Your task to perform on an android device: Clear the shopping cart on target. Add beats solo 3 to the cart on target Image 0: 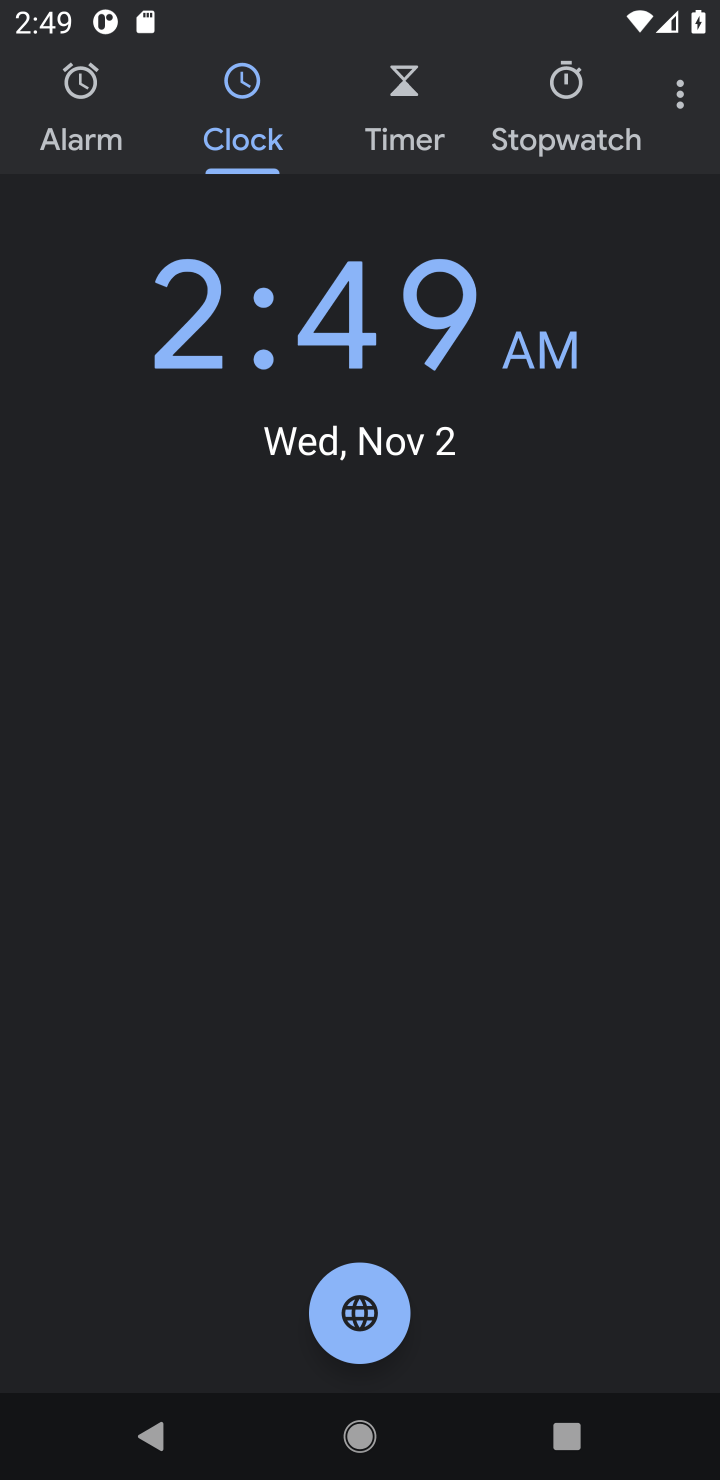
Step 0: press home button
Your task to perform on an android device: Clear the shopping cart on target. Add beats solo 3 to the cart on target Image 1: 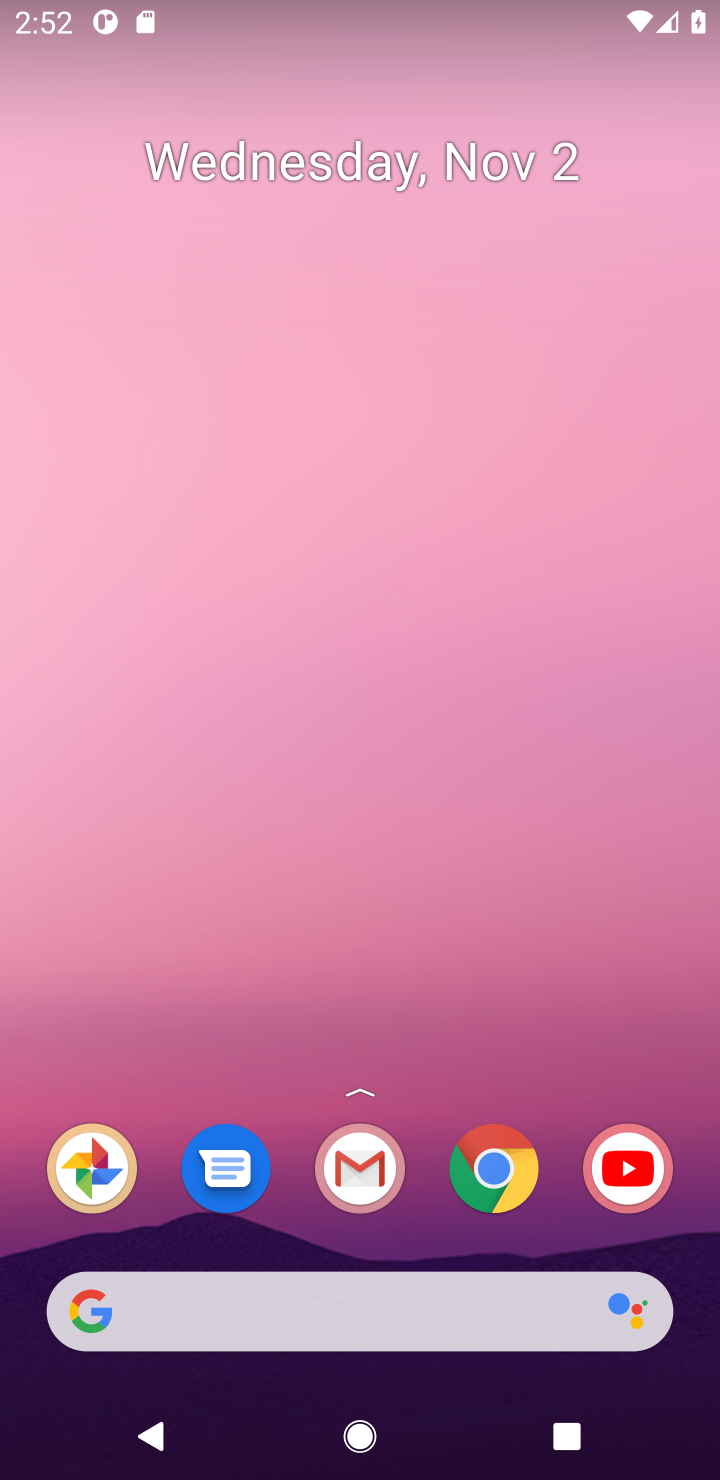
Step 1: click (276, 1297)
Your task to perform on an android device: Clear the shopping cart on target. Add beats solo 3 to the cart on target Image 2: 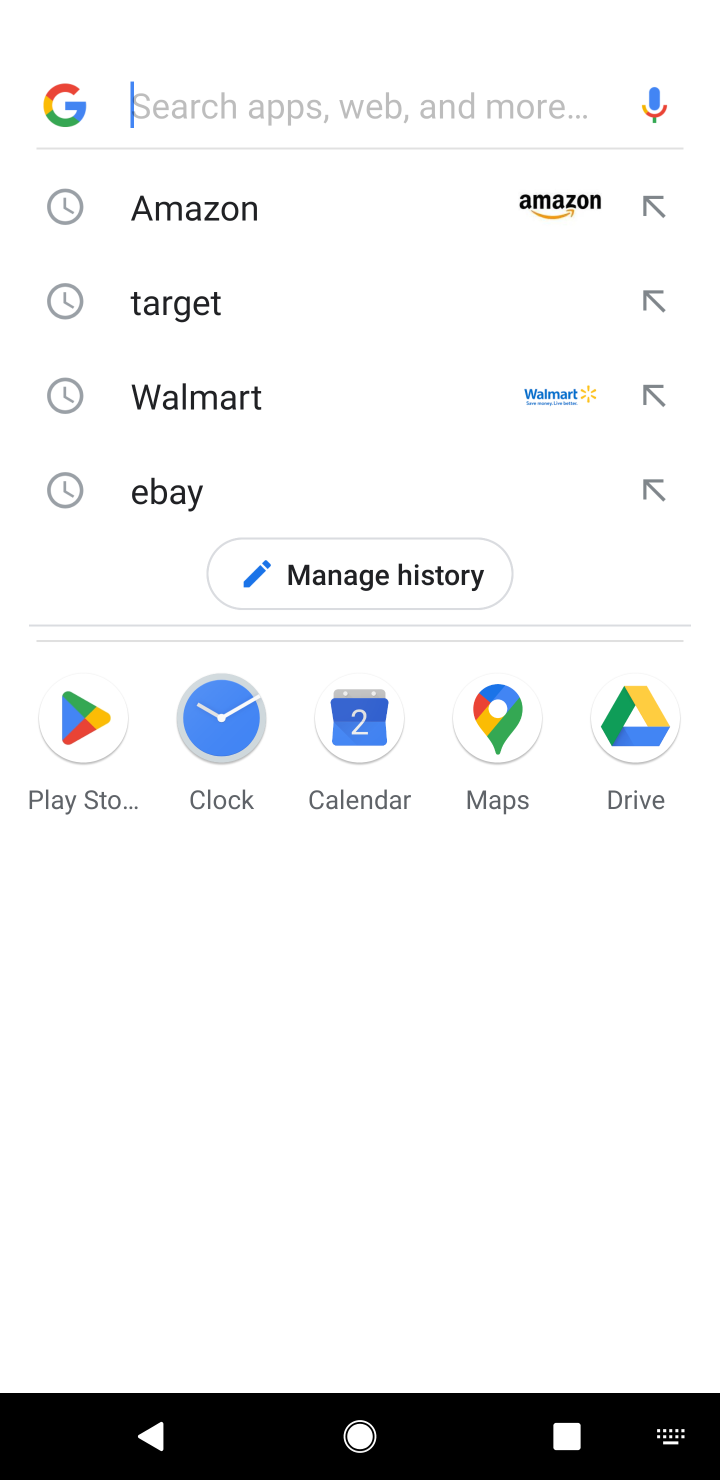
Step 2: type "target"
Your task to perform on an android device: Clear the shopping cart on target. Add beats solo 3 to the cart on target Image 3: 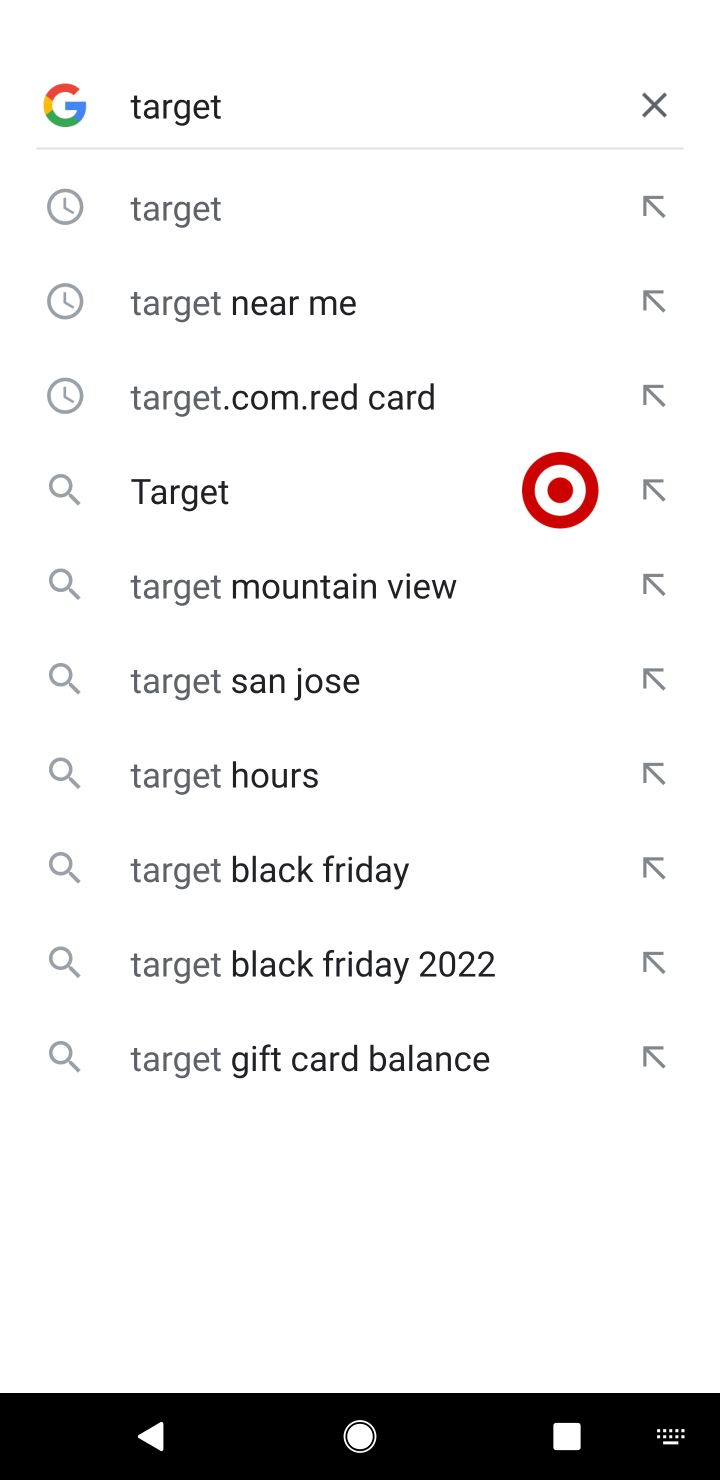
Step 3: click (444, 479)
Your task to perform on an android device: Clear the shopping cart on target. Add beats solo 3 to the cart on target Image 4: 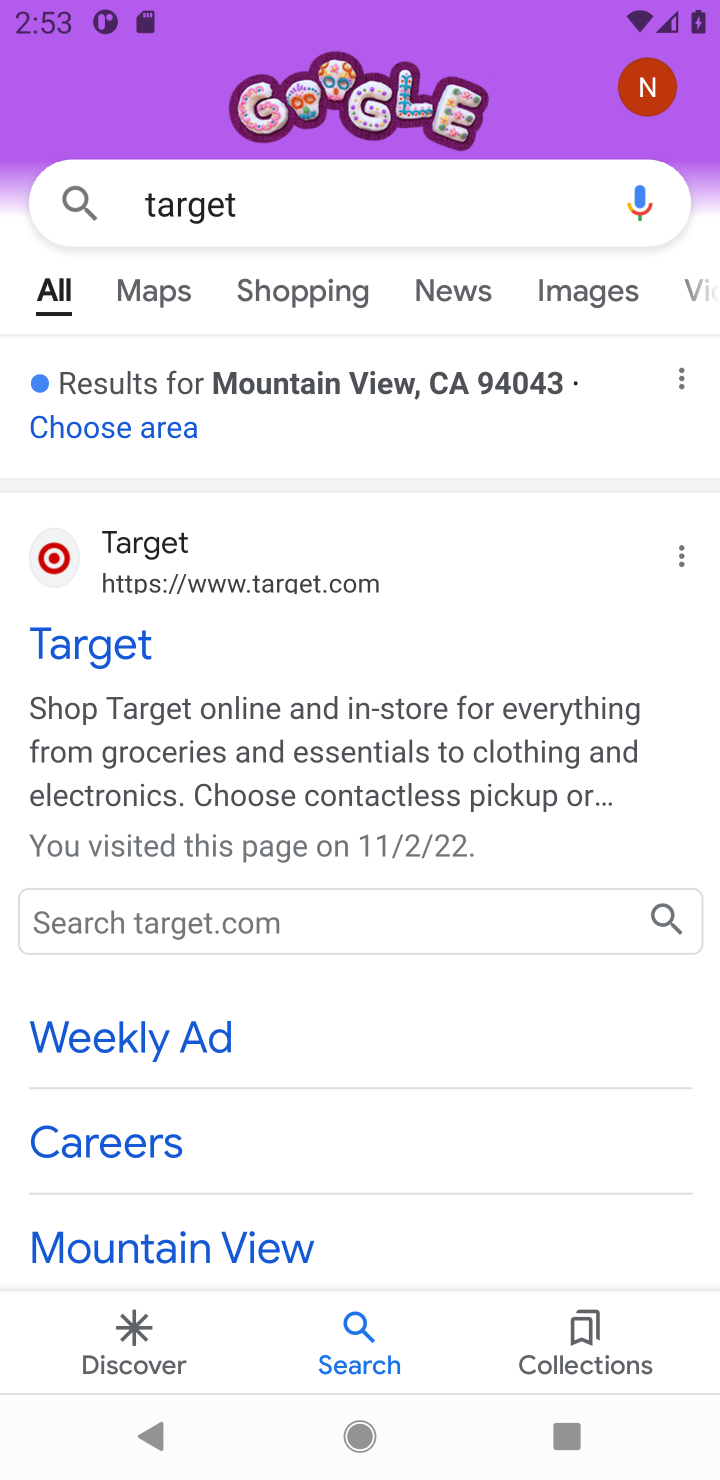
Step 4: click (121, 562)
Your task to perform on an android device: Clear the shopping cart on target. Add beats solo 3 to the cart on target Image 5: 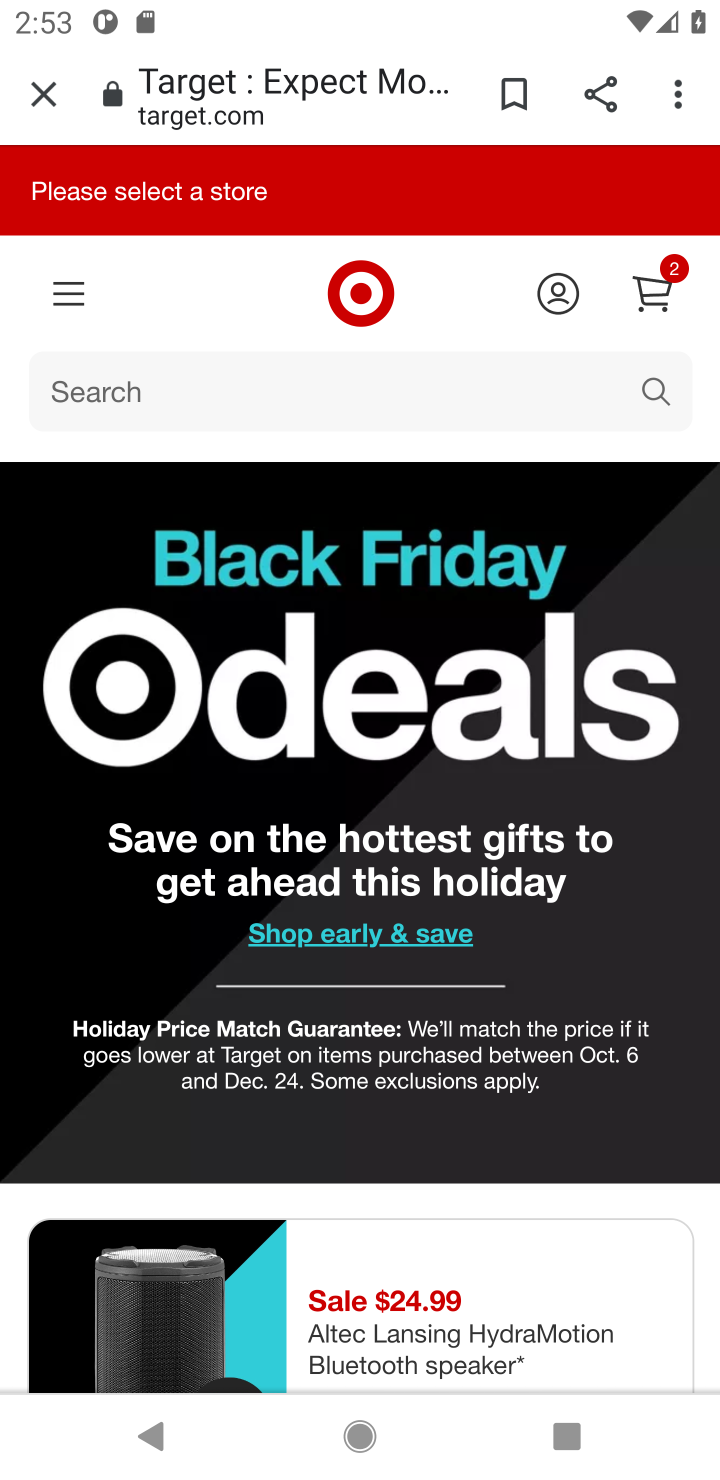
Step 5: click (654, 272)
Your task to perform on an android device: Clear the shopping cart on target. Add beats solo 3 to the cart on target Image 6: 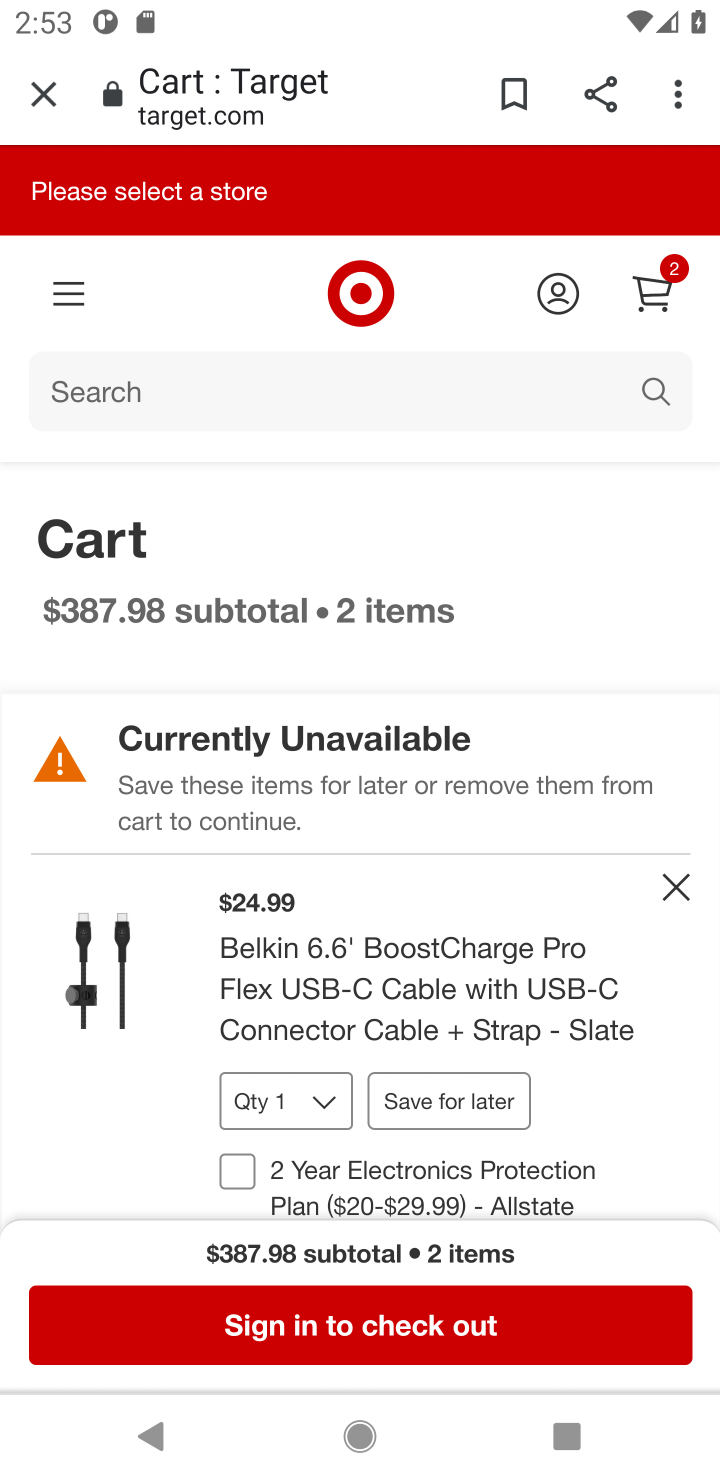
Step 6: click (654, 272)
Your task to perform on an android device: Clear the shopping cart on target. Add beats solo 3 to the cart on target Image 7: 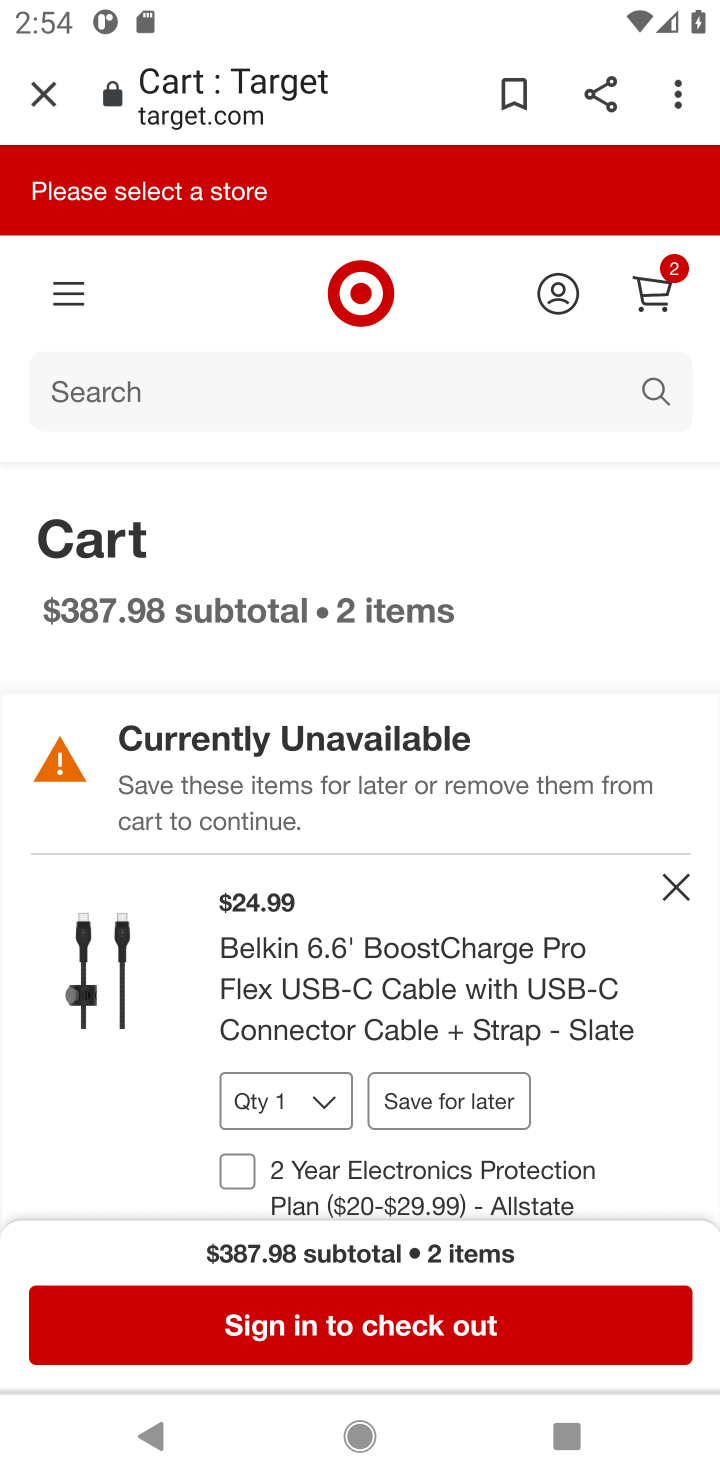
Step 7: click (681, 871)
Your task to perform on an android device: Clear the shopping cart on target. Add beats solo 3 to the cart on target Image 8: 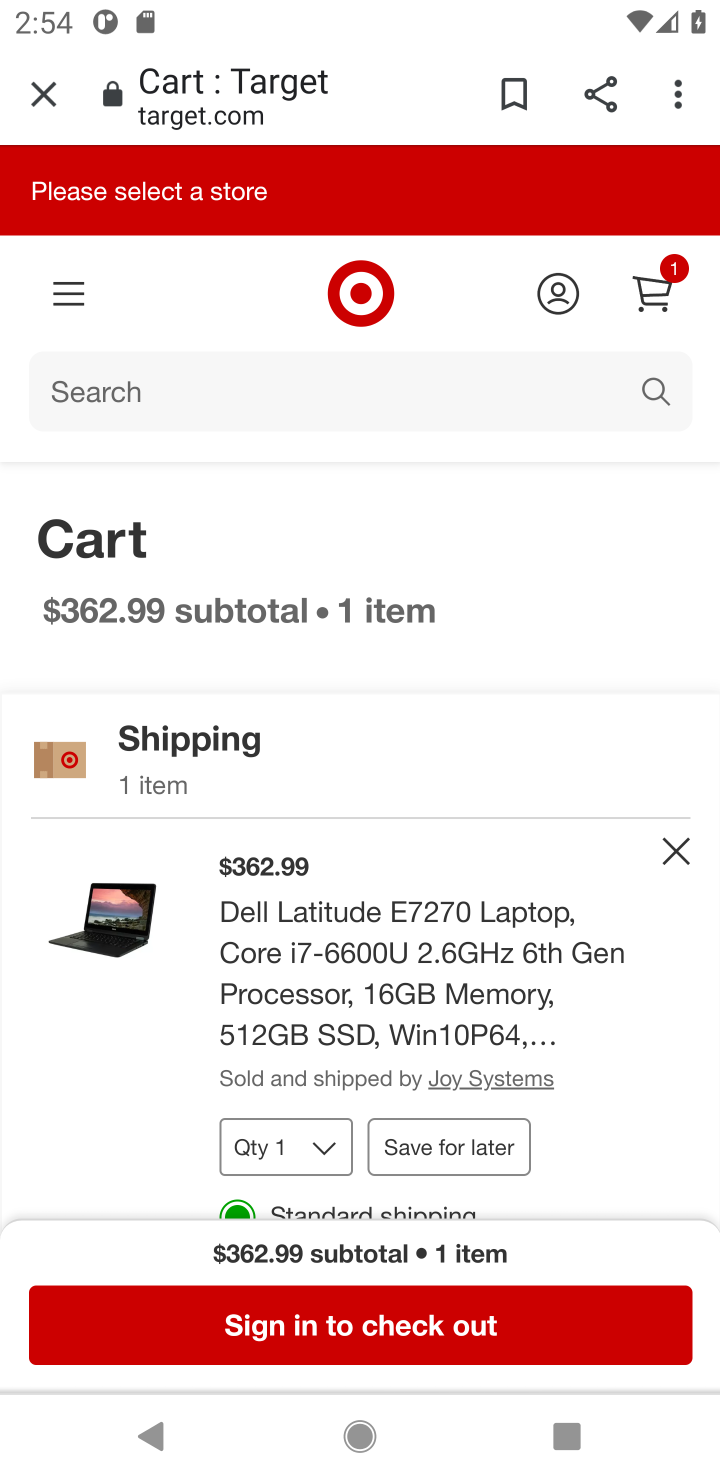
Step 8: click (267, 382)
Your task to perform on an android device: Clear the shopping cart on target. Add beats solo 3 to the cart on target Image 9: 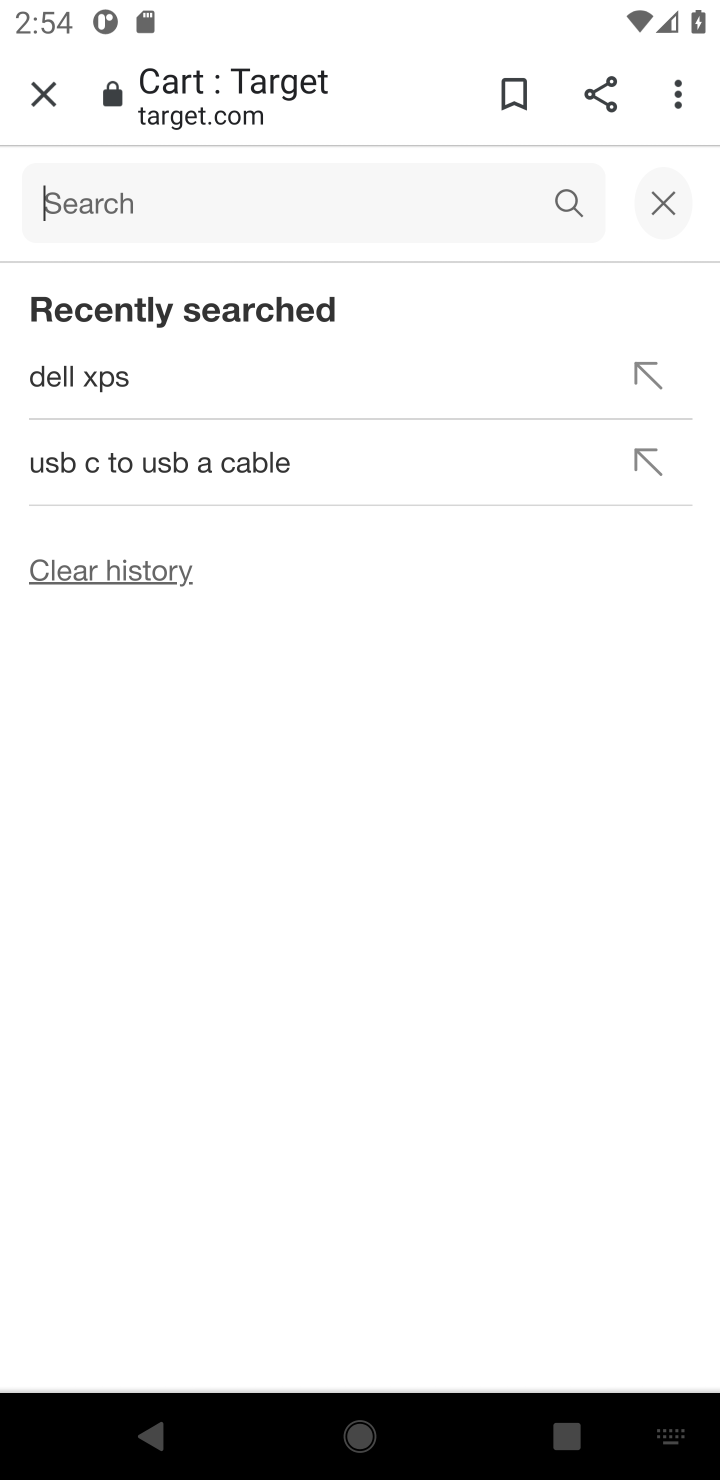
Step 9: type " beats solo 3"
Your task to perform on an android device: Clear the shopping cart on target. Add beats solo 3 to the cart on target Image 10: 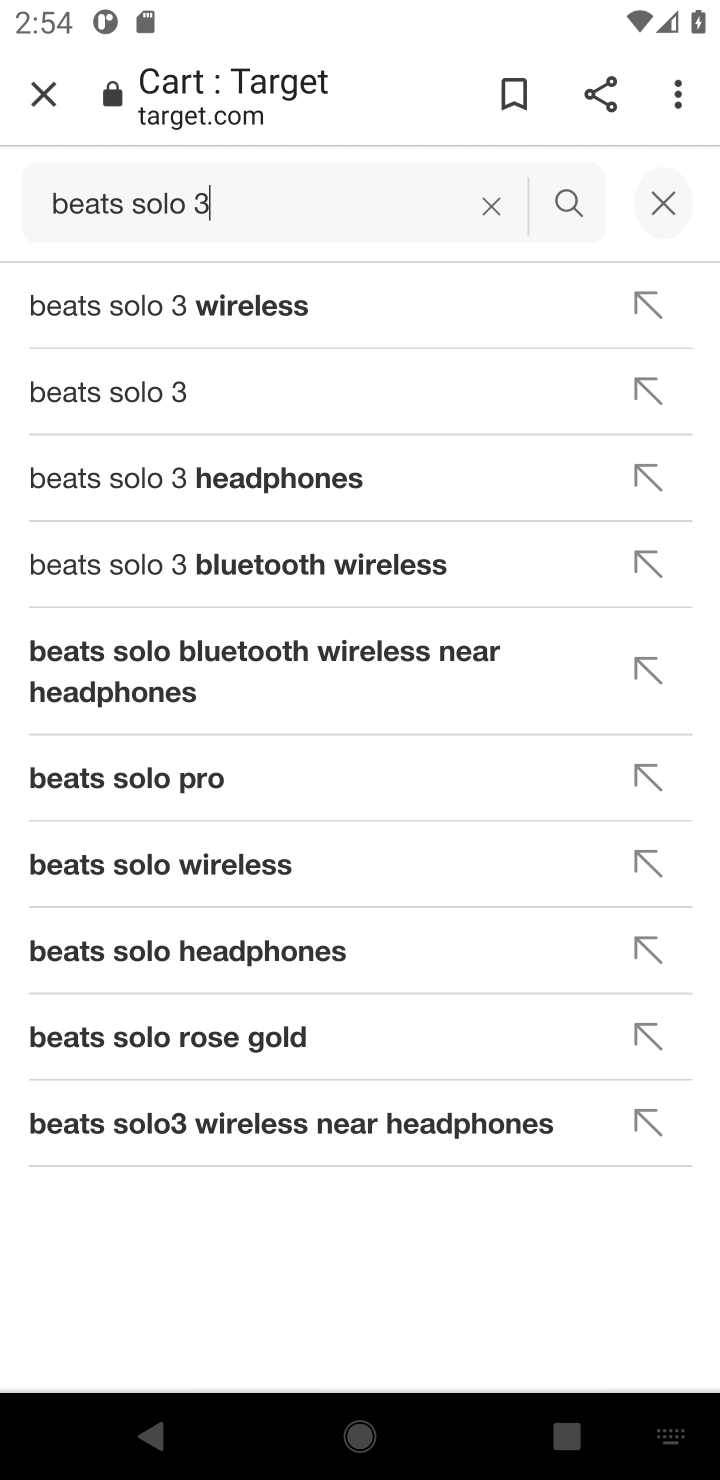
Step 10: click (166, 395)
Your task to perform on an android device: Clear the shopping cart on target. Add beats solo 3 to the cart on target Image 11: 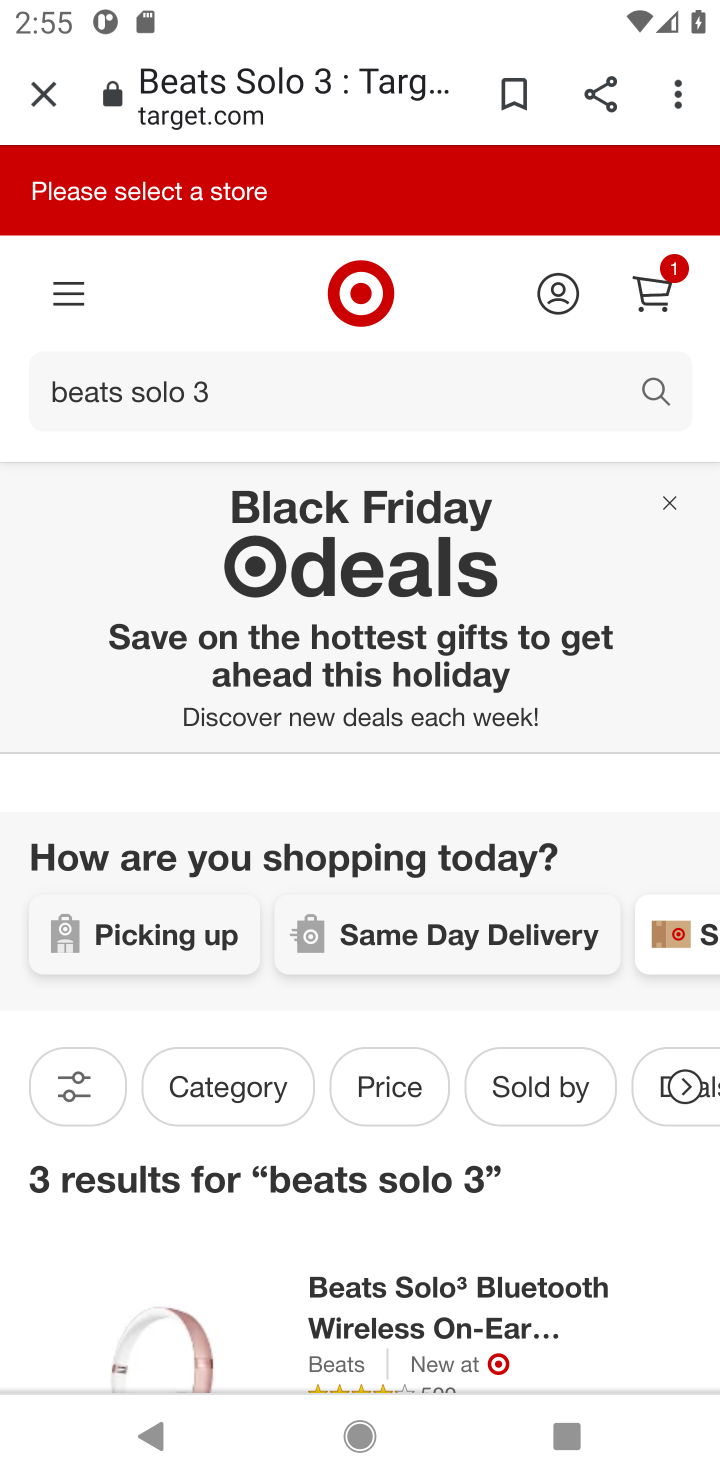
Step 11: drag from (347, 1225) to (416, 886)
Your task to perform on an android device: Clear the shopping cart on target. Add beats solo 3 to the cart on target Image 12: 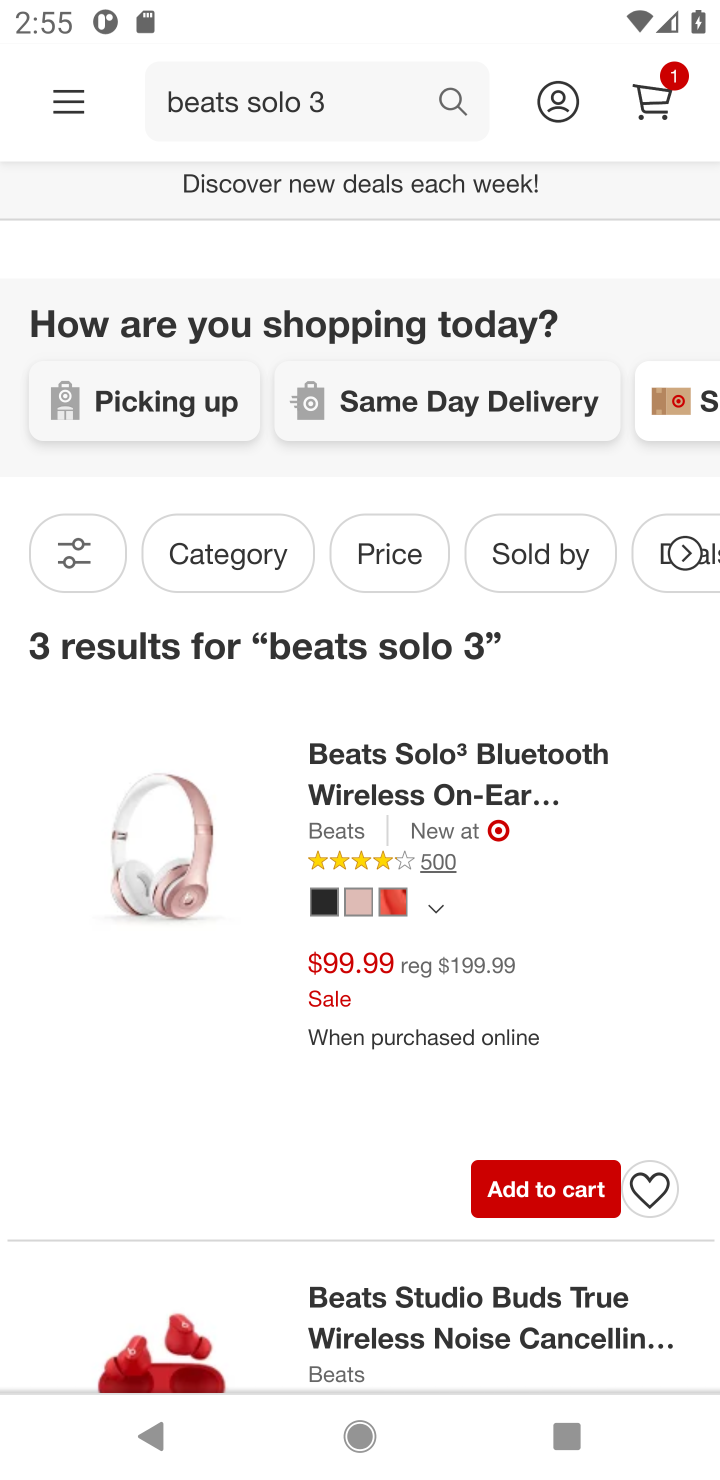
Step 12: click (497, 1188)
Your task to perform on an android device: Clear the shopping cart on target. Add beats solo 3 to the cart on target Image 13: 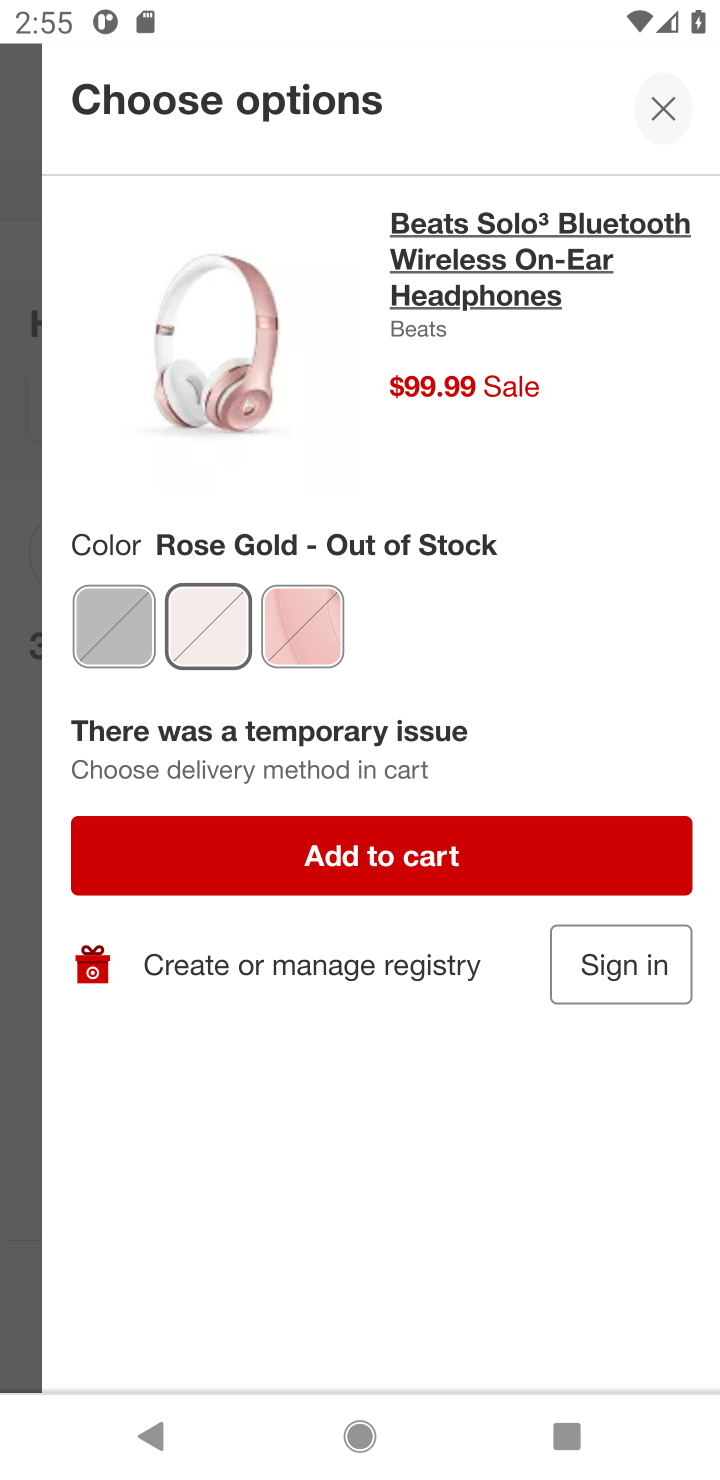
Step 13: click (354, 846)
Your task to perform on an android device: Clear the shopping cart on target. Add beats solo 3 to the cart on target Image 14: 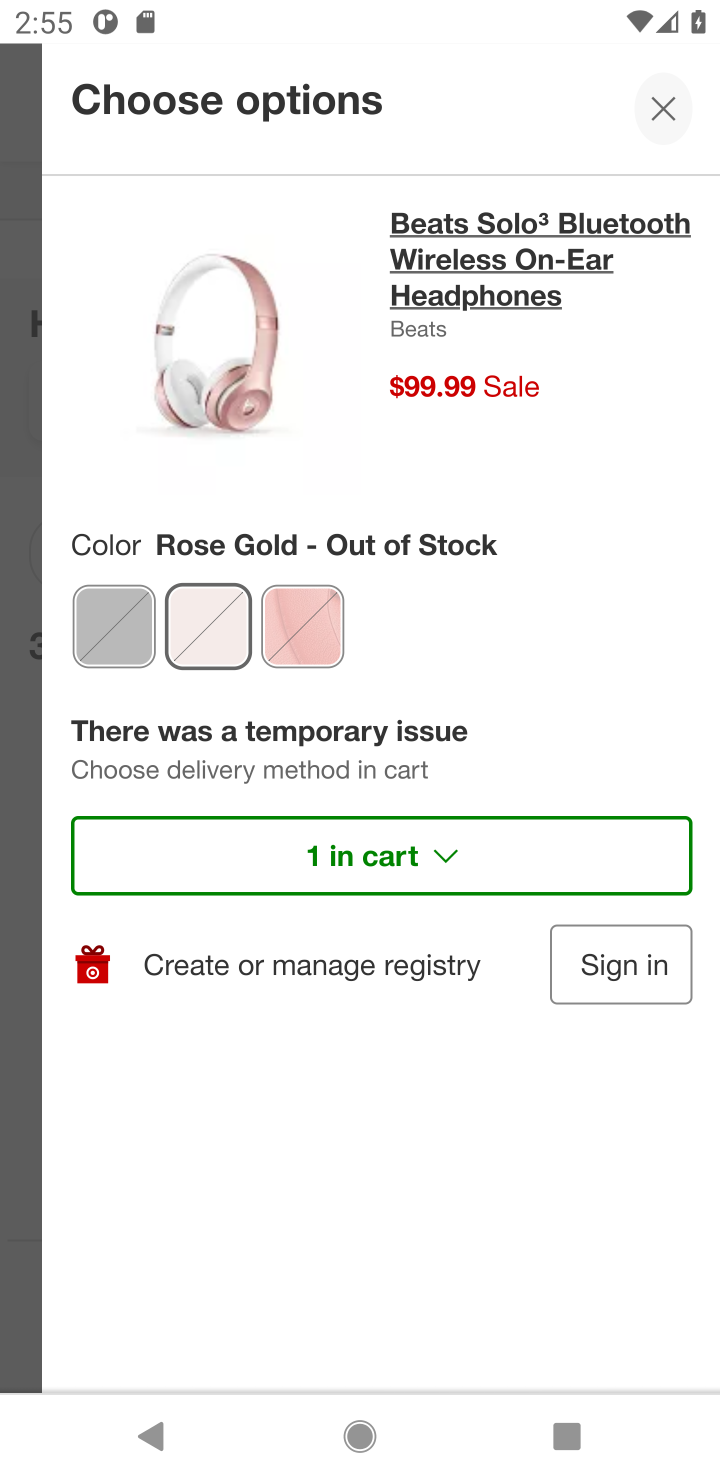
Step 14: task complete